Your task to perform on an android device: turn on bluetooth scan Image 0: 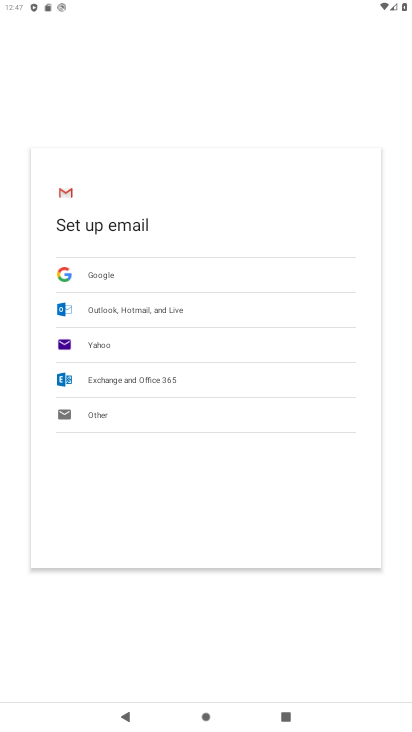
Step 0: press home button
Your task to perform on an android device: turn on bluetooth scan Image 1: 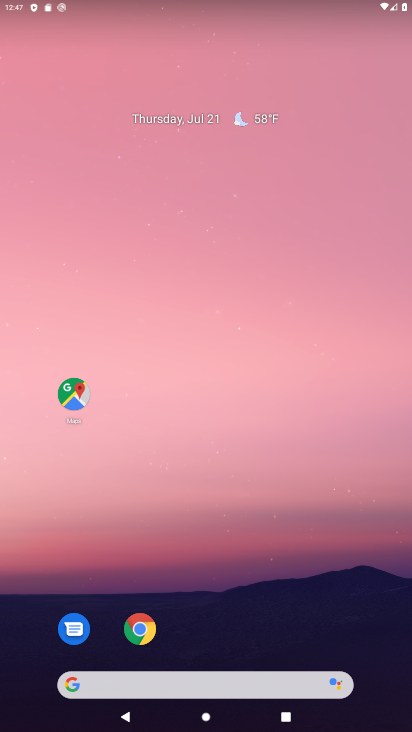
Step 1: drag from (170, 689) to (215, 50)
Your task to perform on an android device: turn on bluetooth scan Image 2: 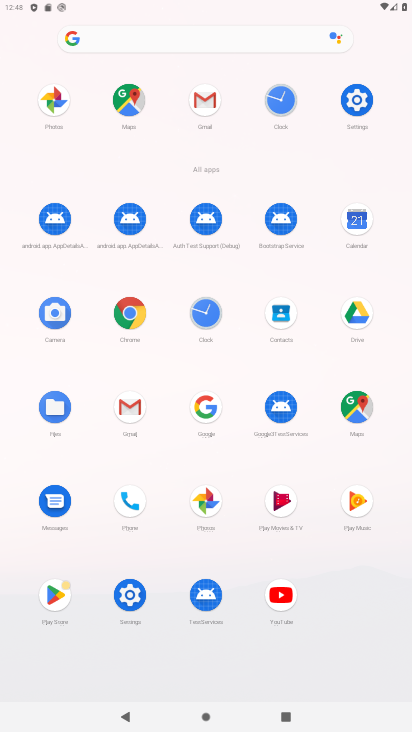
Step 2: click (357, 100)
Your task to perform on an android device: turn on bluetooth scan Image 3: 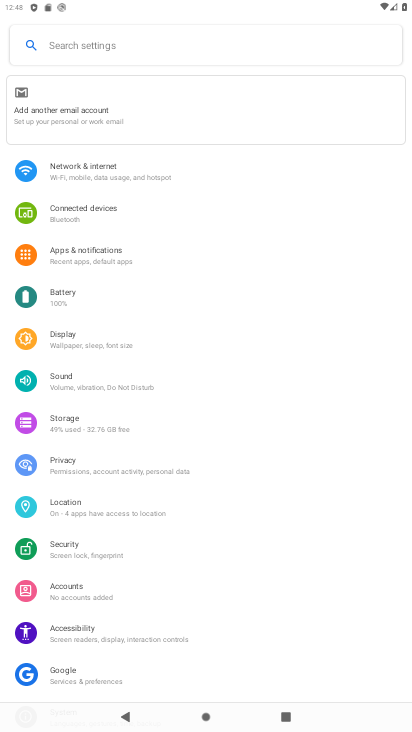
Step 3: click (97, 512)
Your task to perform on an android device: turn on bluetooth scan Image 4: 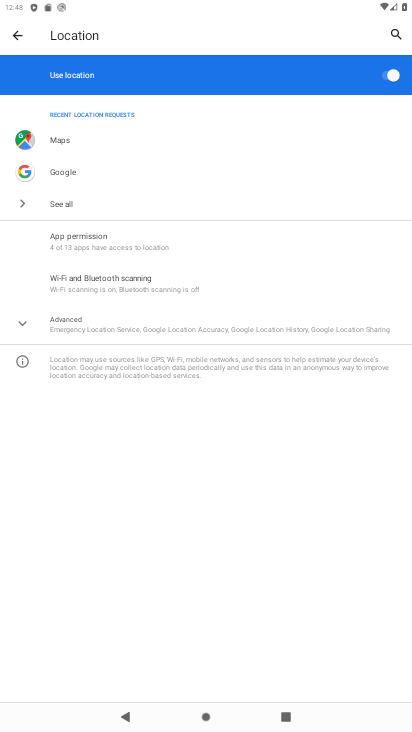
Step 4: click (134, 284)
Your task to perform on an android device: turn on bluetooth scan Image 5: 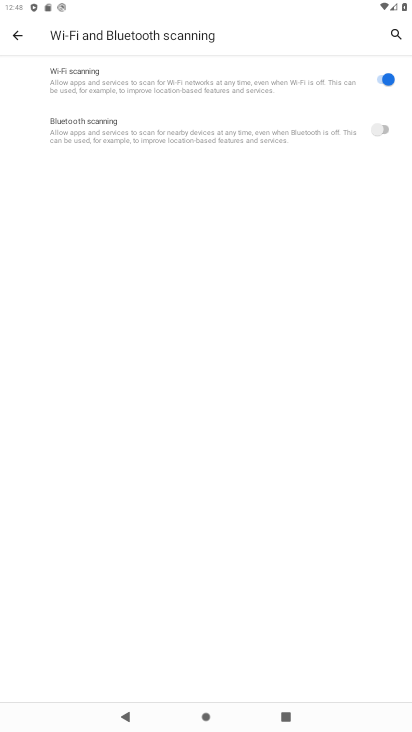
Step 5: click (380, 131)
Your task to perform on an android device: turn on bluetooth scan Image 6: 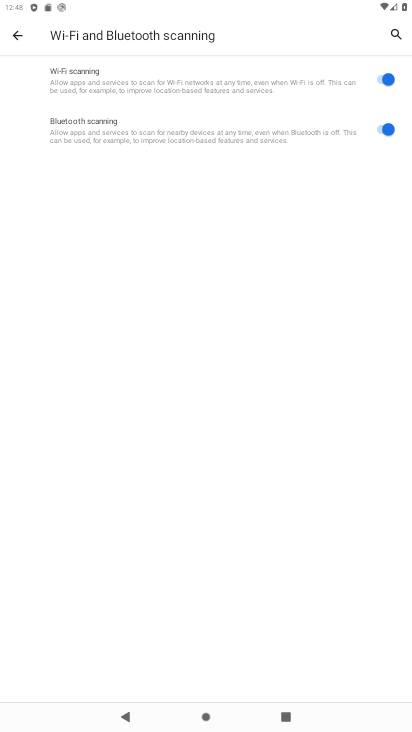
Step 6: task complete